Your task to perform on an android device: refresh tabs in the chrome app Image 0: 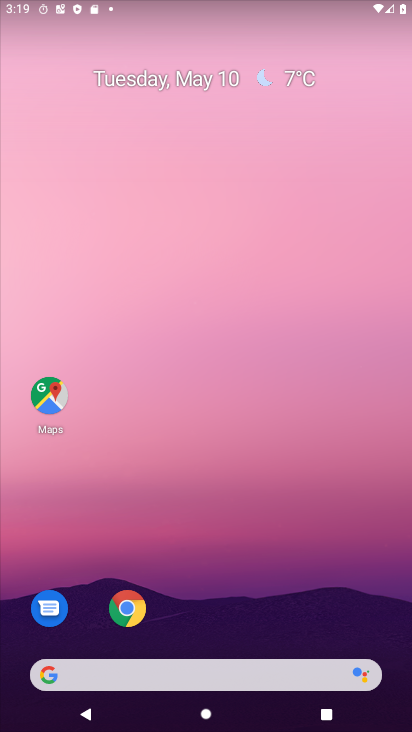
Step 0: click (139, 612)
Your task to perform on an android device: refresh tabs in the chrome app Image 1: 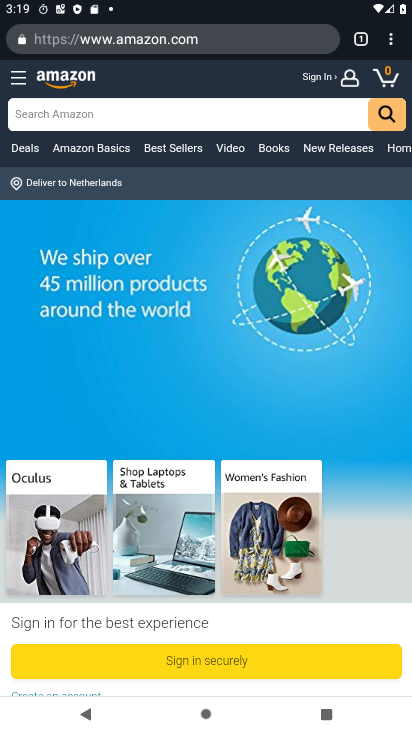
Step 1: click (391, 41)
Your task to perform on an android device: refresh tabs in the chrome app Image 2: 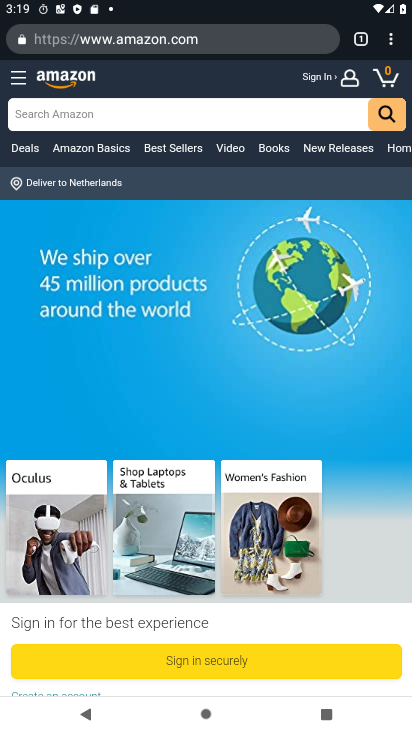
Step 2: click (388, 47)
Your task to perform on an android device: refresh tabs in the chrome app Image 3: 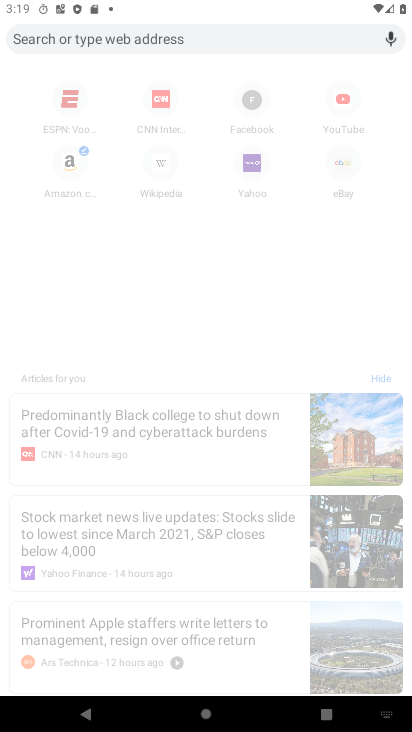
Step 3: press back button
Your task to perform on an android device: refresh tabs in the chrome app Image 4: 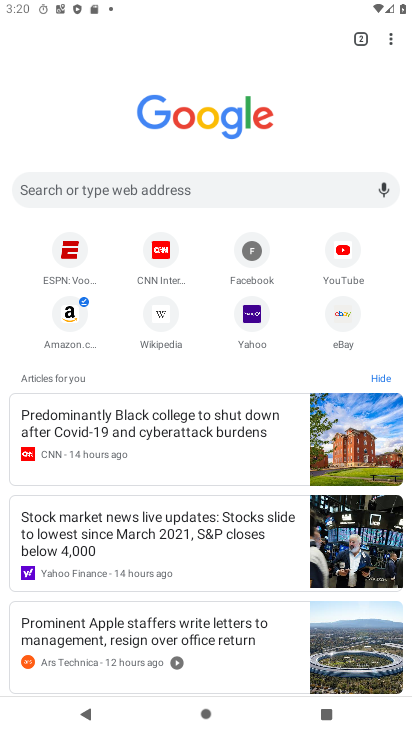
Step 4: click (391, 38)
Your task to perform on an android device: refresh tabs in the chrome app Image 5: 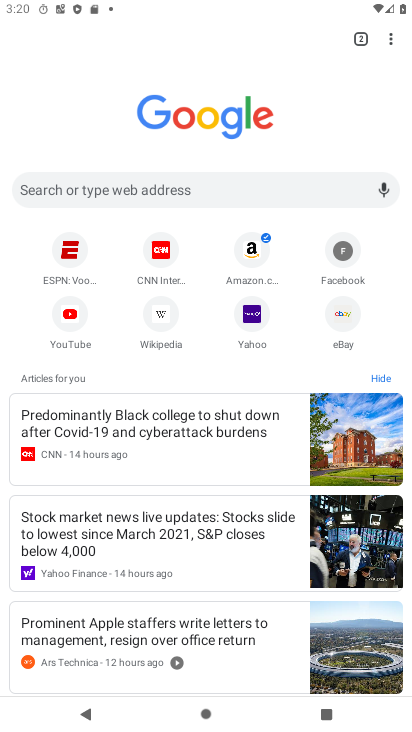
Step 5: click (395, 38)
Your task to perform on an android device: refresh tabs in the chrome app Image 6: 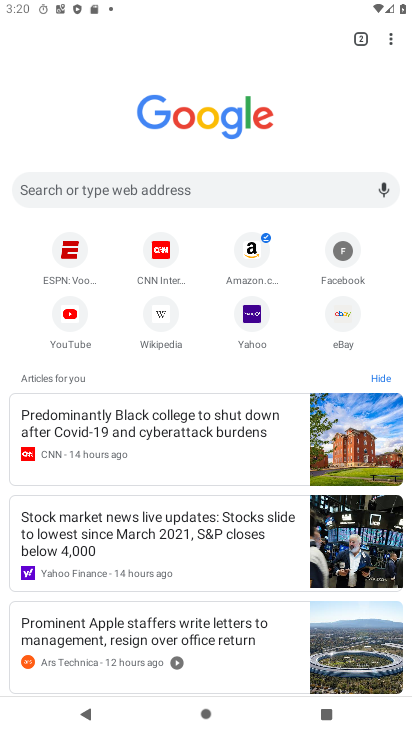
Step 6: click (391, 39)
Your task to perform on an android device: refresh tabs in the chrome app Image 7: 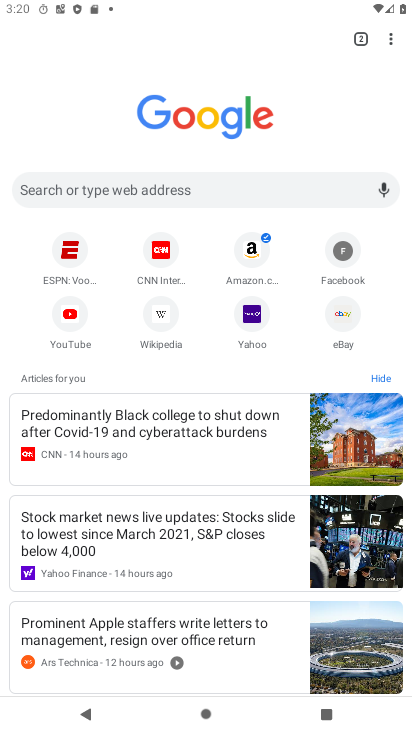
Step 7: click (391, 39)
Your task to perform on an android device: refresh tabs in the chrome app Image 8: 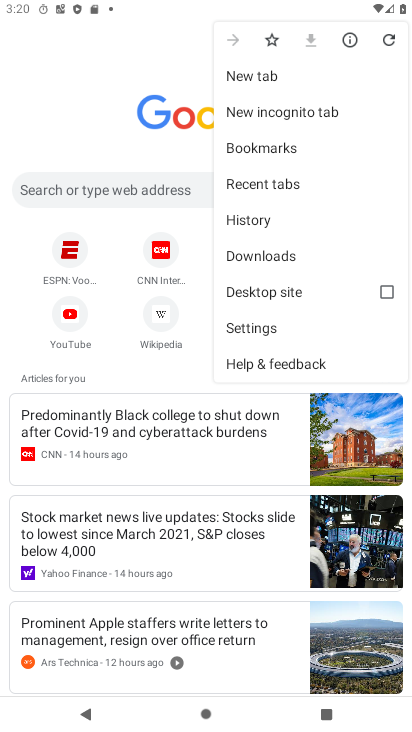
Step 8: click (391, 39)
Your task to perform on an android device: refresh tabs in the chrome app Image 9: 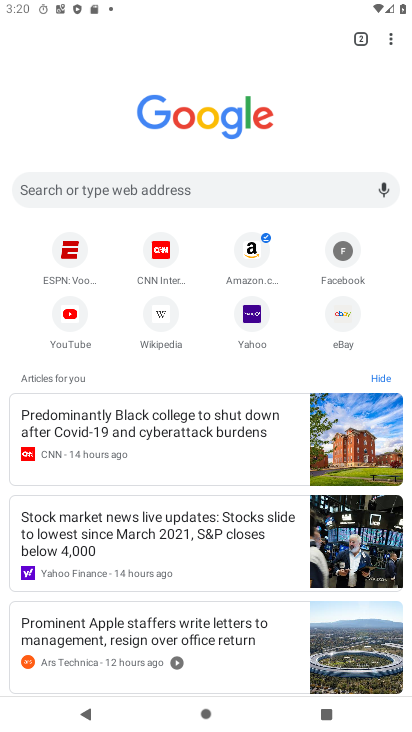
Step 9: task complete